Your task to perform on an android device: Set the phone to "Do not disturb". Image 0: 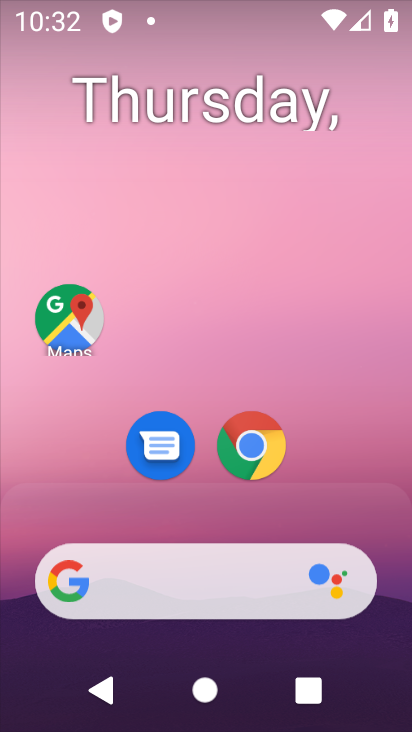
Step 0: drag from (203, 5) to (195, 675)
Your task to perform on an android device: Set the phone to "Do not disturb". Image 1: 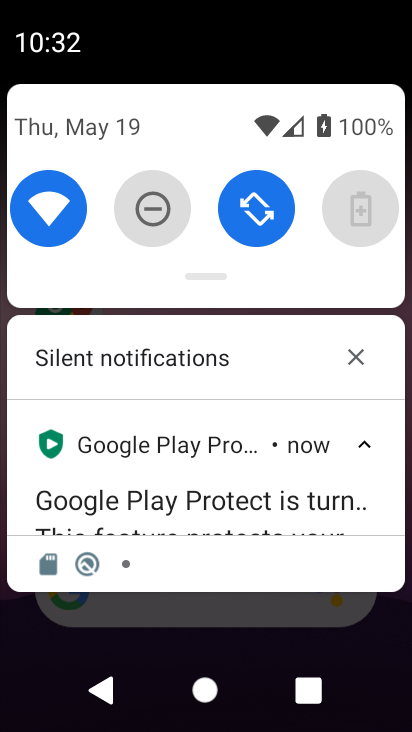
Step 1: click (152, 208)
Your task to perform on an android device: Set the phone to "Do not disturb". Image 2: 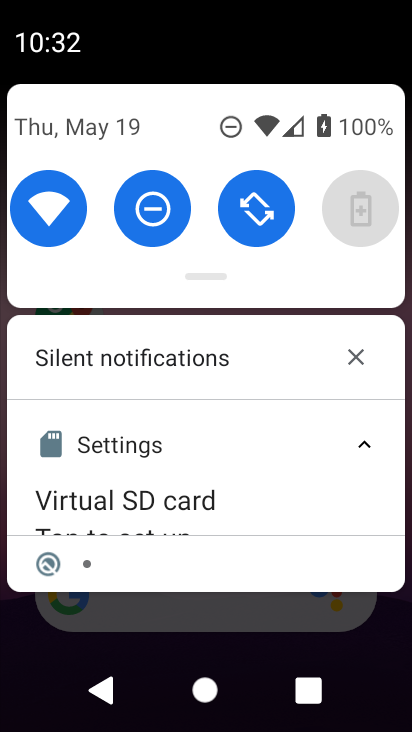
Step 2: task complete